Your task to perform on an android device: What's the weather today? Image 0: 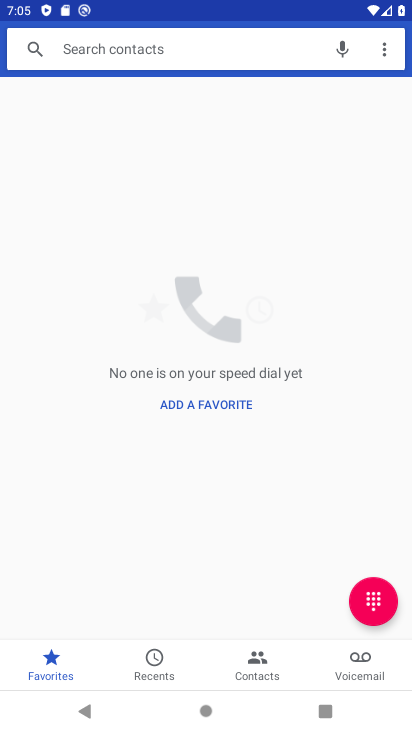
Step 0: drag from (374, 632) to (330, 314)
Your task to perform on an android device: What's the weather today? Image 1: 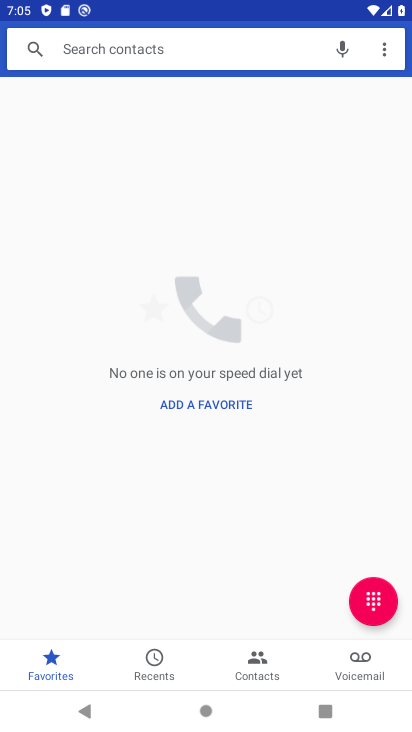
Step 1: press home button
Your task to perform on an android device: What's the weather today? Image 2: 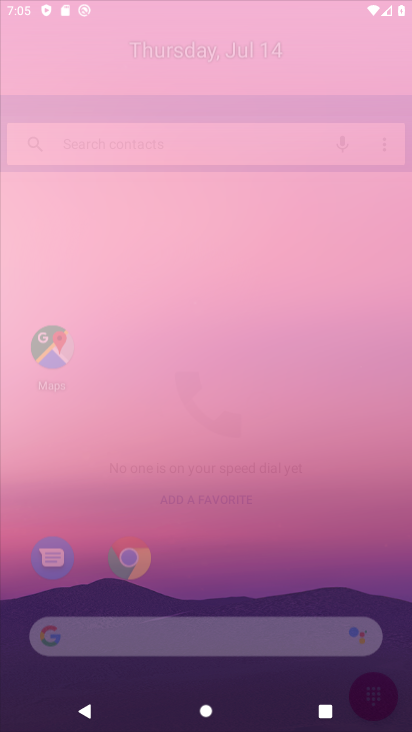
Step 2: drag from (362, 642) to (250, 35)
Your task to perform on an android device: What's the weather today? Image 3: 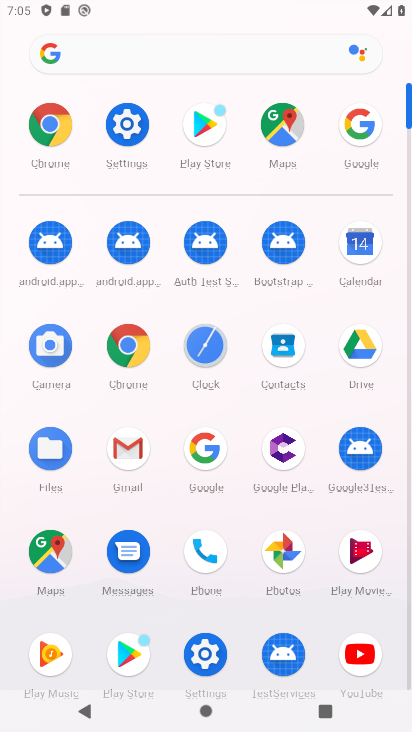
Step 3: click (204, 437)
Your task to perform on an android device: What's the weather today? Image 4: 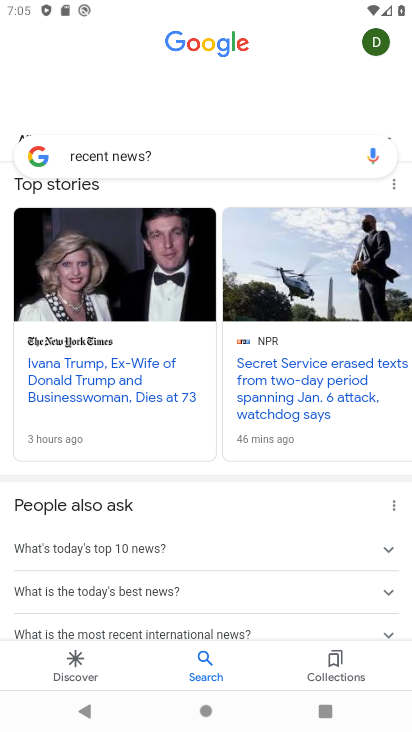
Step 4: press back button
Your task to perform on an android device: What's the weather today? Image 5: 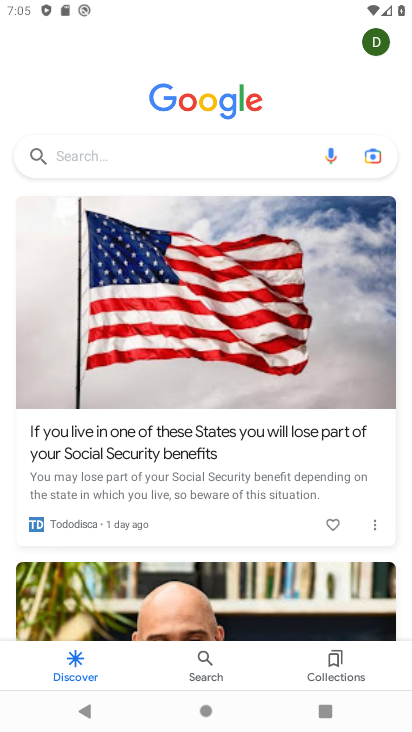
Step 5: click (86, 158)
Your task to perform on an android device: What's the weather today? Image 6: 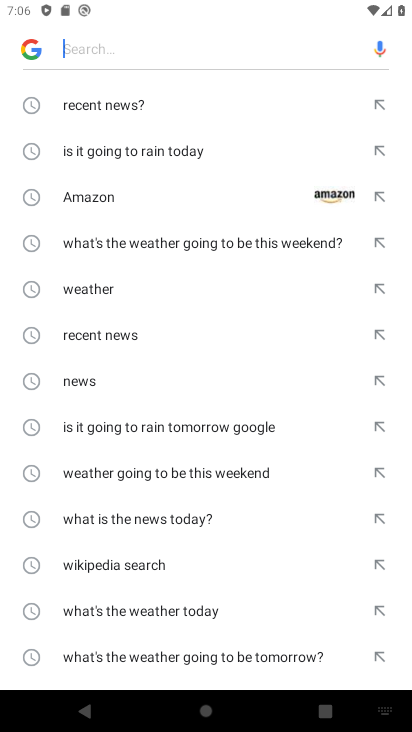
Step 6: click (124, 611)
Your task to perform on an android device: What's the weather today? Image 7: 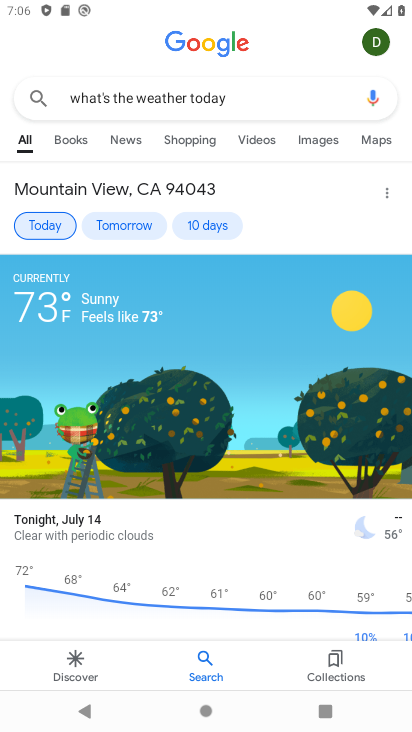
Step 7: task complete